Your task to perform on an android device: Show me productivity apps on the Play Store Image 0: 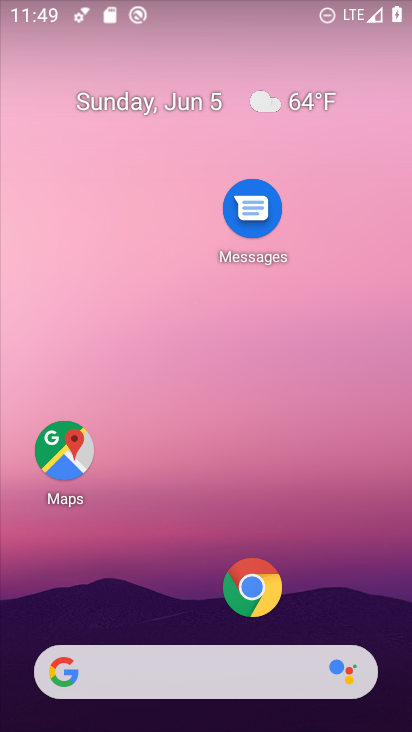
Step 0: drag from (160, 542) to (185, 205)
Your task to perform on an android device: Show me productivity apps on the Play Store Image 1: 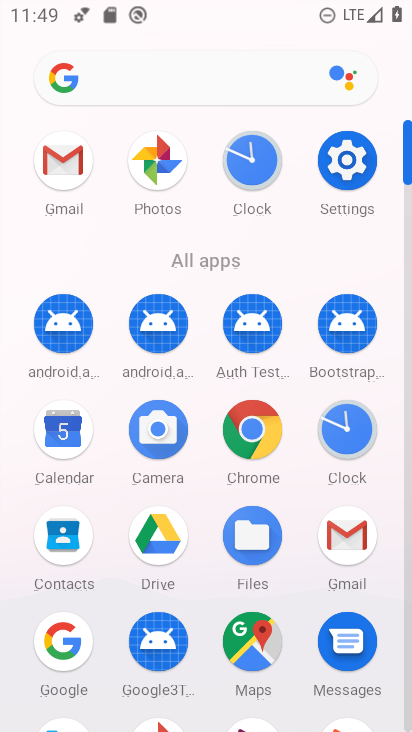
Step 1: drag from (198, 688) to (191, 317)
Your task to perform on an android device: Show me productivity apps on the Play Store Image 2: 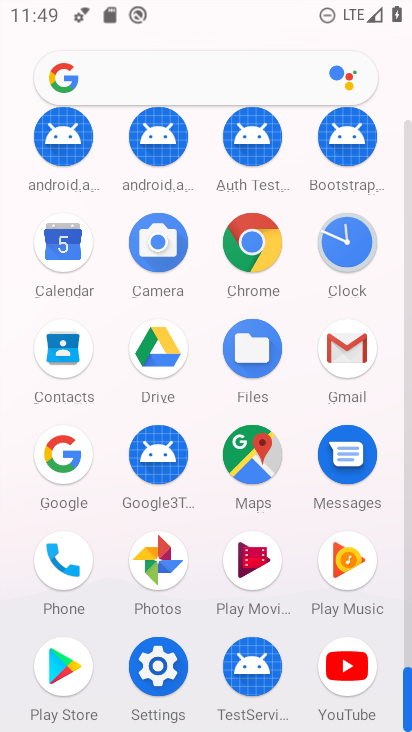
Step 2: click (55, 656)
Your task to perform on an android device: Show me productivity apps on the Play Store Image 3: 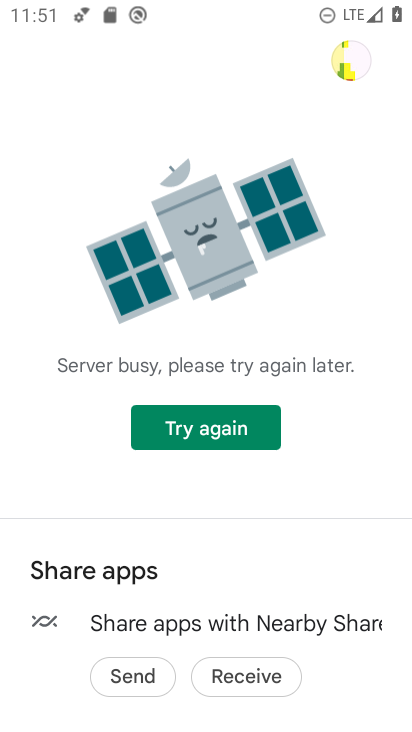
Step 3: task complete